Your task to perform on an android device: set the timer Image 0: 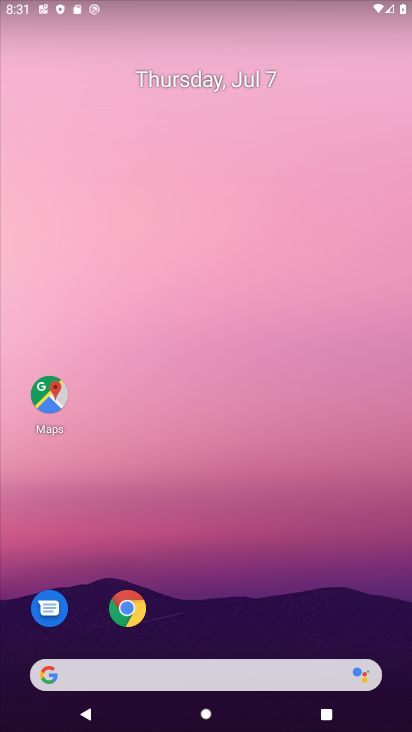
Step 0: drag from (197, 673) to (185, 88)
Your task to perform on an android device: set the timer Image 1: 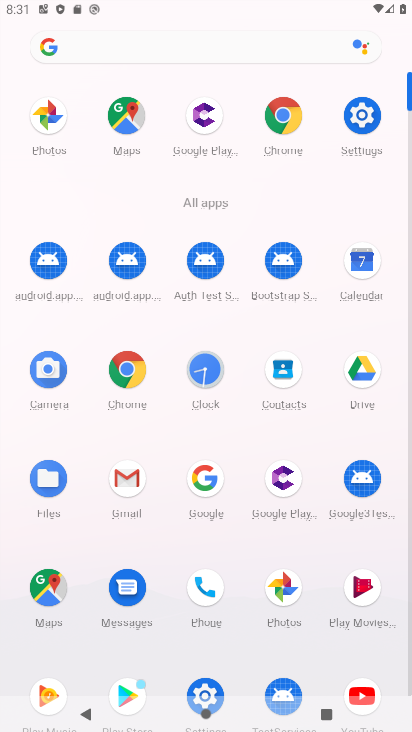
Step 1: click (195, 385)
Your task to perform on an android device: set the timer Image 2: 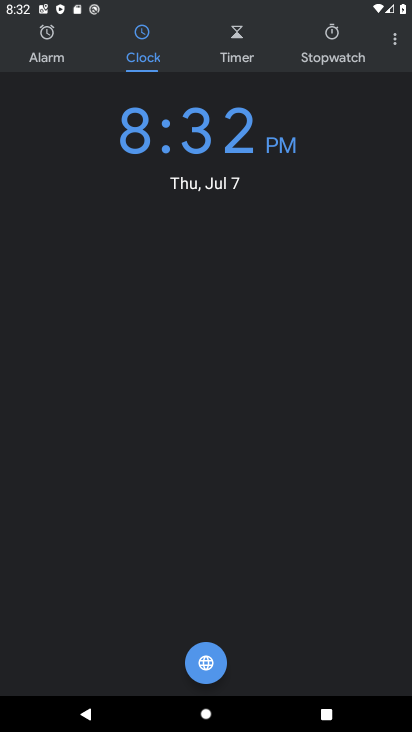
Step 2: click (235, 34)
Your task to perform on an android device: set the timer Image 3: 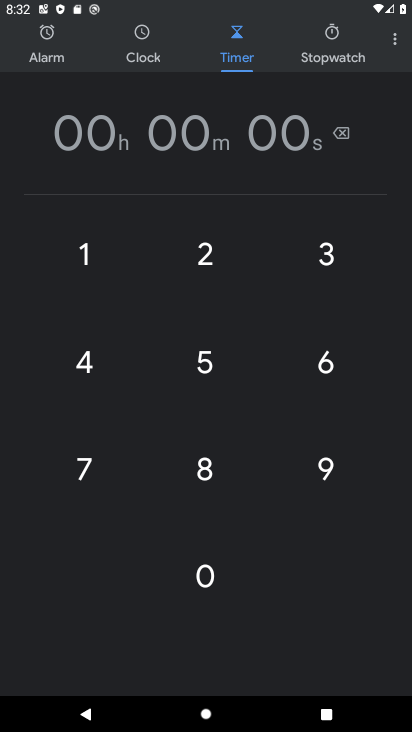
Step 3: click (194, 349)
Your task to perform on an android device: set the timer Image 4: 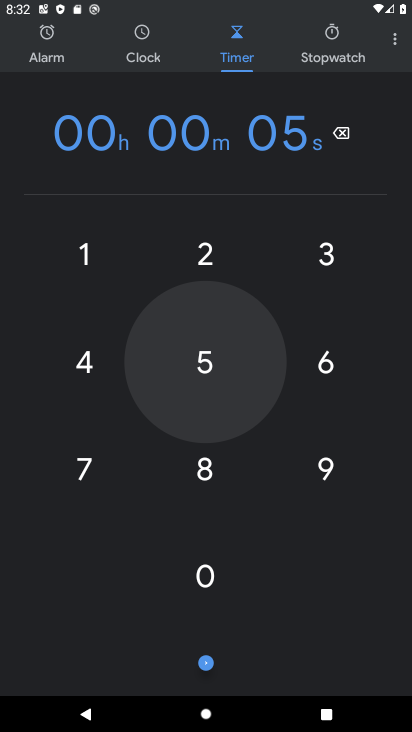
Step 4: click (337, 367)
Your task to perform on an android device: set the timer Image 5: 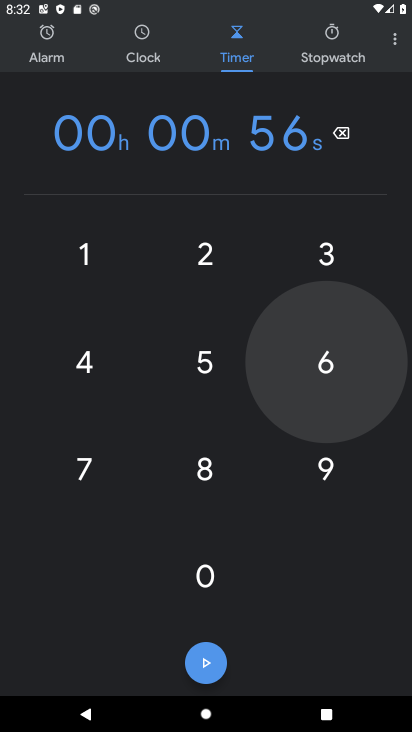
Step 5: click (184, 483)
Your task to perform on an android device: set the timer Image 6: 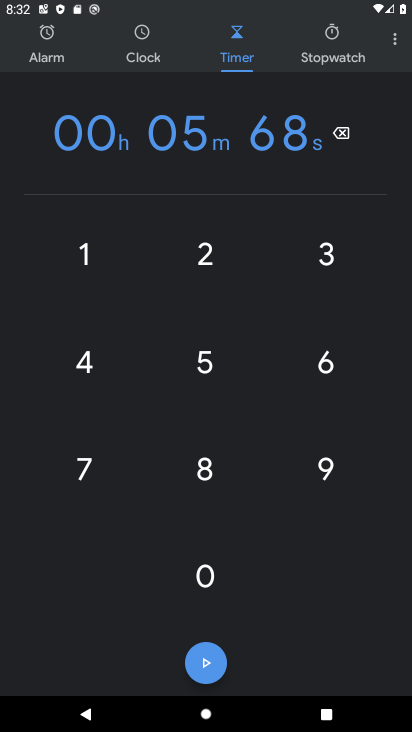
Step 6: click (358, 477)
Your task to perform on an android device: set the timer Image 7: 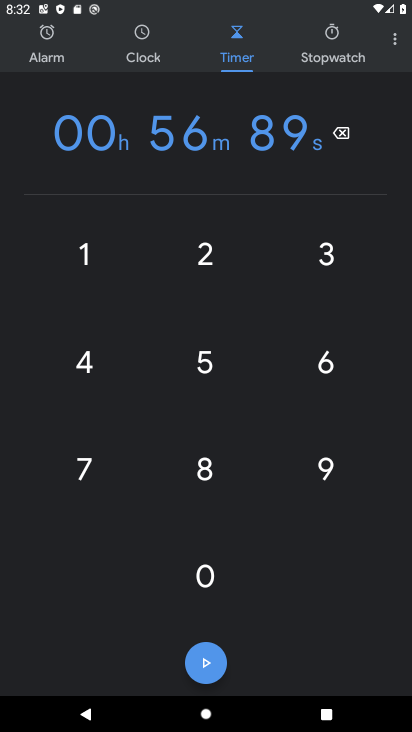
Step 7: task complete